Your task to perform on an android device: move a message to another label in the gmail app Image 0: 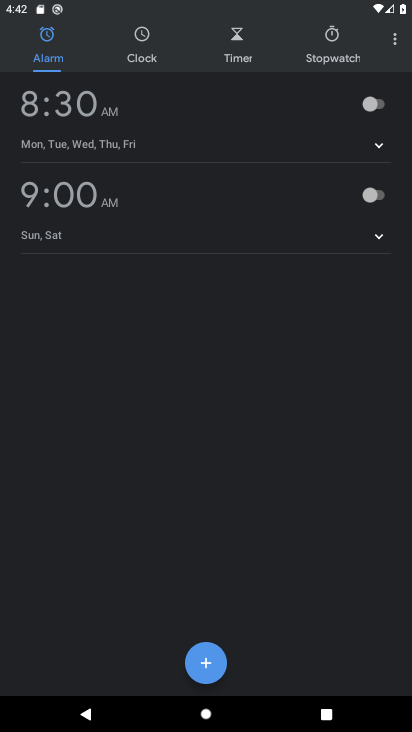
Step 0: press home button
Your task to perform on an android device: move a message to another label in the gmail app Image 1: 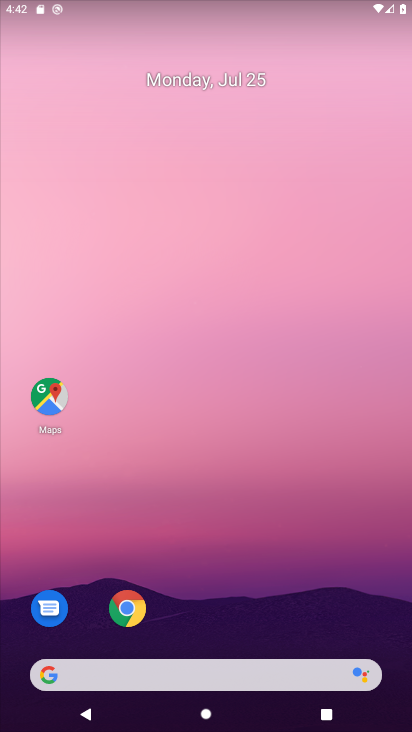
Step 1: drag from (268, 618) to (238, 11)
Your task to perform on an android device: move a message to another label in the gmail app Image 2: 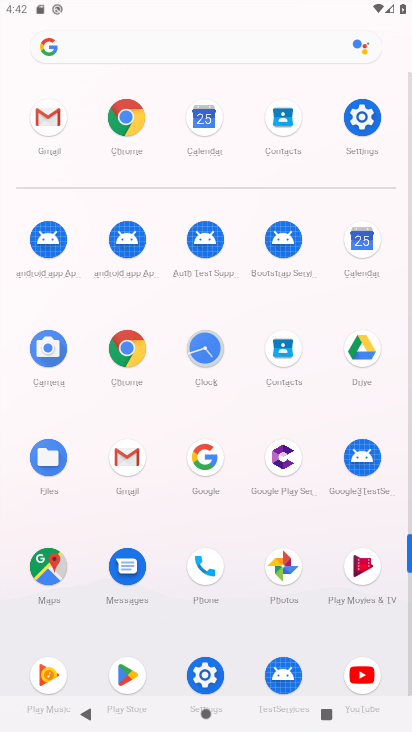
Step 2: click (133, 475)
Your task to perform on an android device: move a message to another label in the gmail app Image 3: 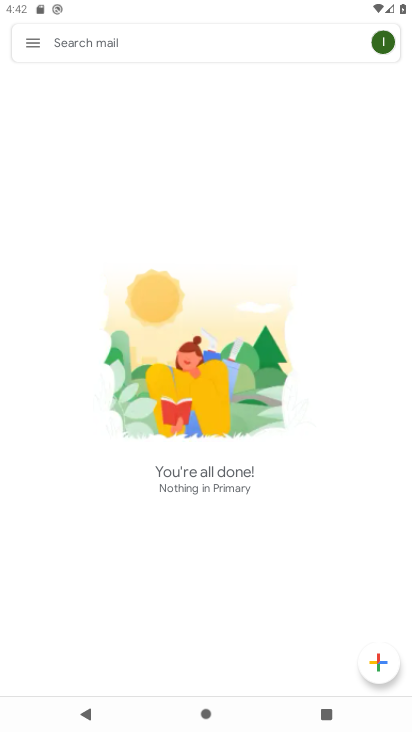
Step 3: task complete